Your task to perform on an android device: check storage Image 0: 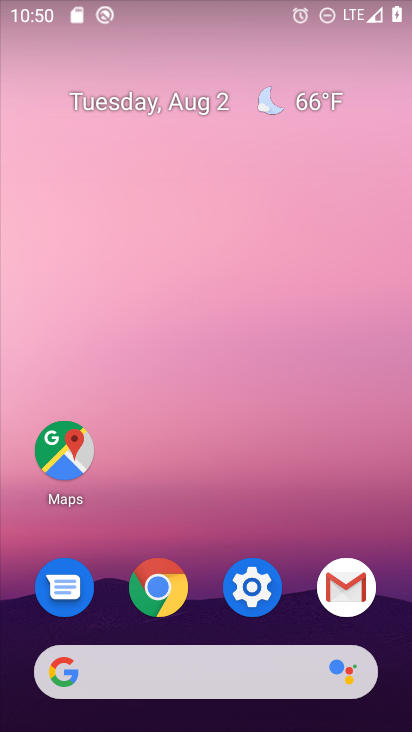
Step 0: click (243, 589)
Your task to perform on an android device: check storage Image 1: 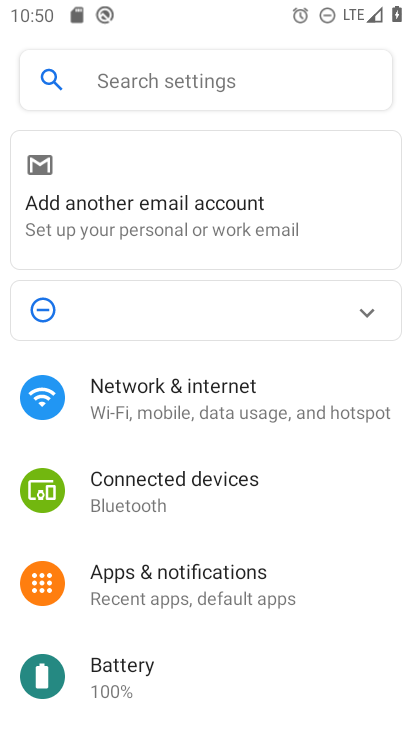
Step 1: click (176, 81)
Your task to perform on an android device: check storage Image 2: 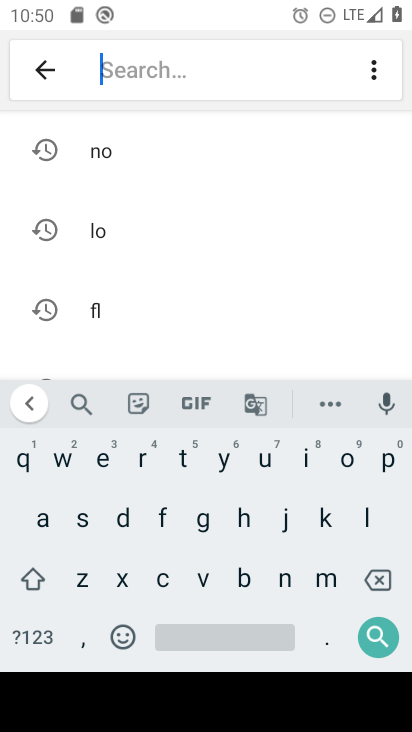
Step 2: click (85, 517)
Your task to perform on an android device: check storage Image 3: 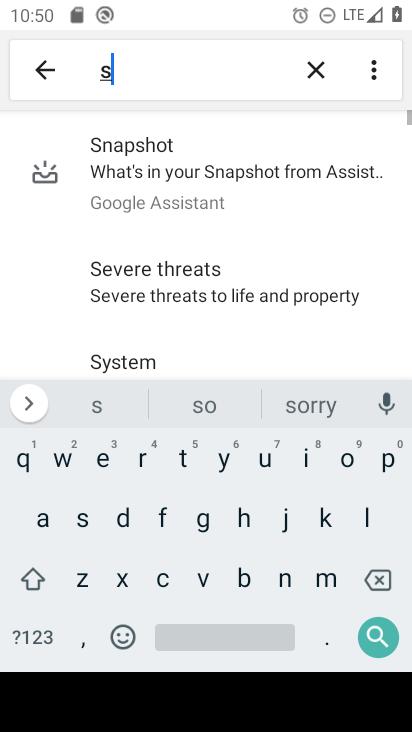
Step 3: click (186, 458)
Your task to perform on an android device: check storage Image 4: 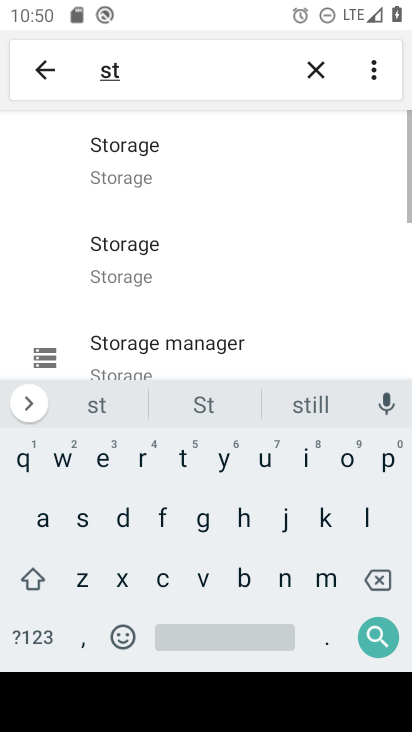
Step 4: click (168, 175)
Your task to perform on an android device: check storage Image 5: 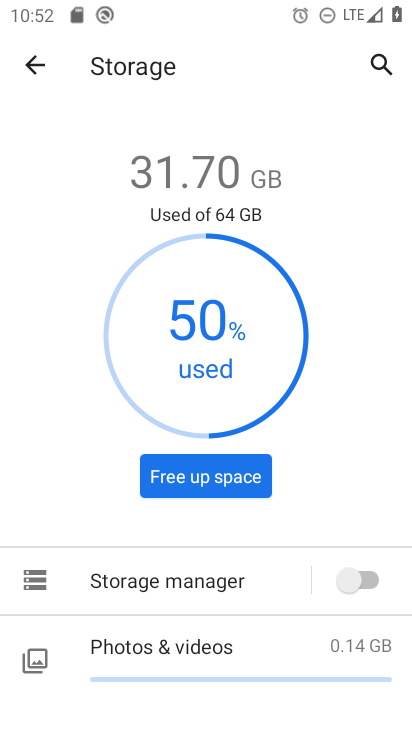
Step 5: task complete